Your task to perform on an android device: Turn off the flashlight Image 0: 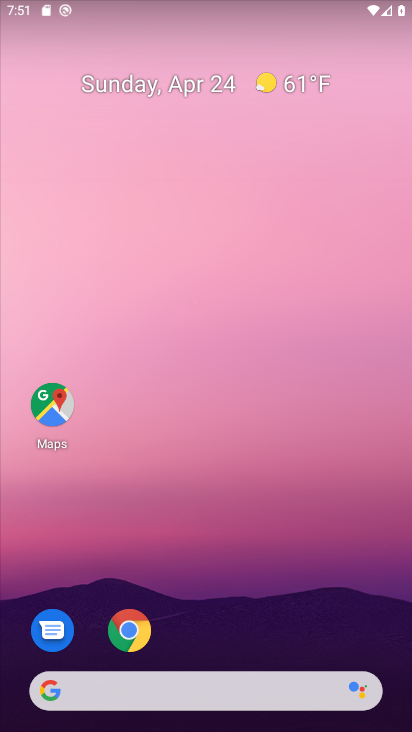
Step 0: drag from (272, 2) to (258, 497)
Your task to perform on an android device: Turn off the flashlight Image 1: 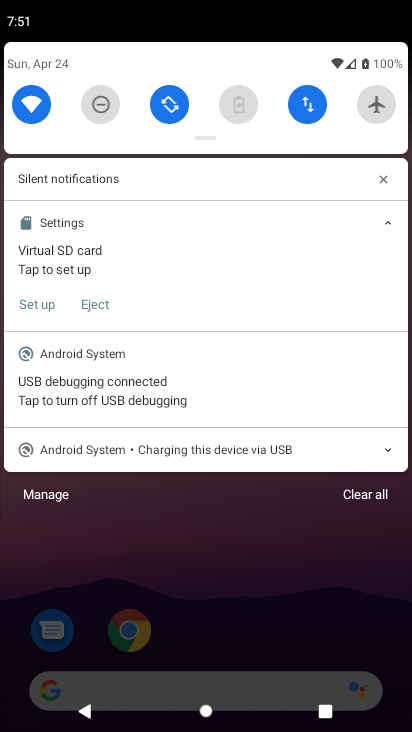
Step 1: drag from (199, 75) to (226, 411)
Your task to perform on an android device: Turn off the flashlight Image 2: 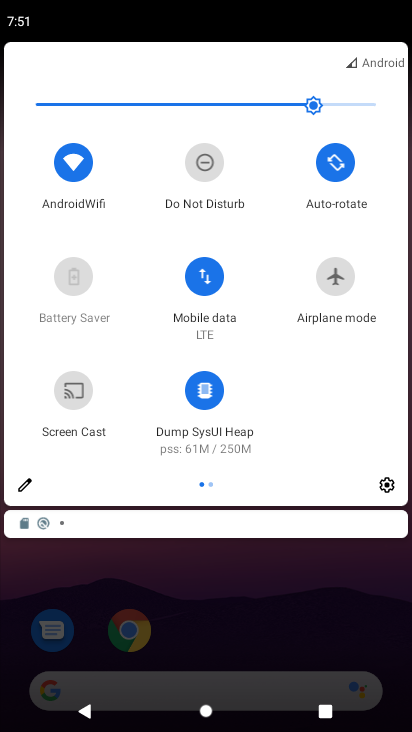
Step 2: click (20, 483)
Your task to perform on an android device: Turn off the flashlight Image 3: 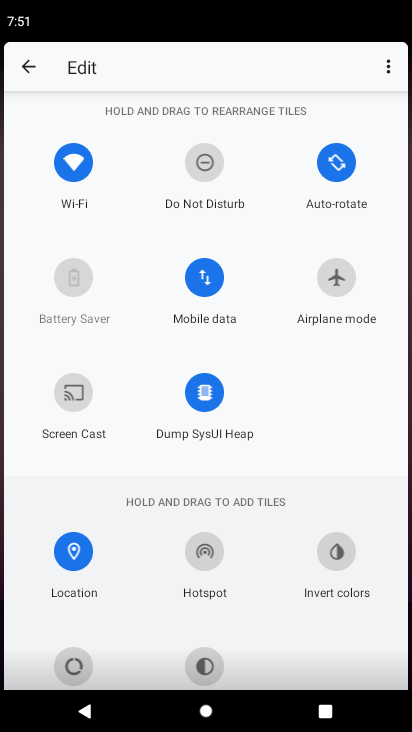
Step 3: task complete